Your task to perform on an android device: snooze an email in the gmail app Image 0: 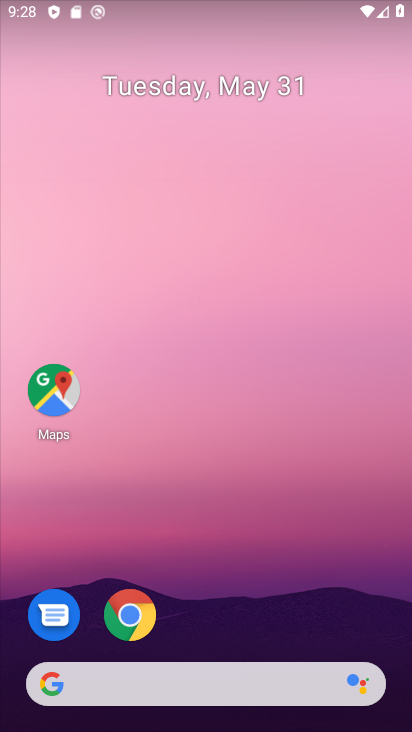
Step 0: drag from (244, 622) to (254, 47)
Your task to perform on an android device: snooze an email in the gmail app Image 1: 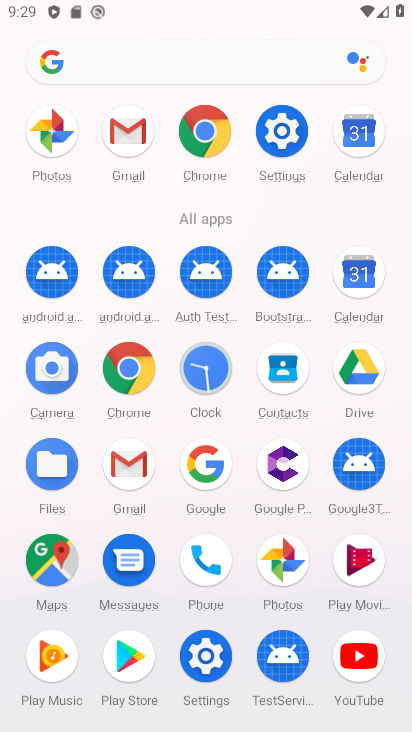
Step 1: click (121, 462)
Your task to perform on an android device: snooze an email in the gmail app Image 2: 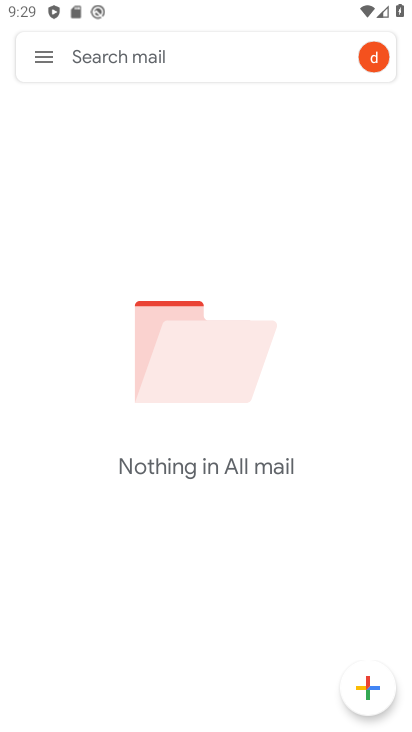
Step 2: click (36, 49)
Your task to perform on an android device: snooze an email in the gmail app Image 3: 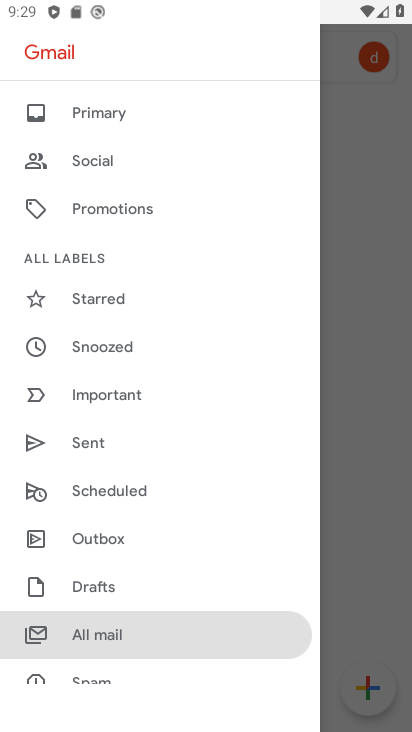
Step 3: click (83, 630)
Your task to perform on an android device: snooze an email in the gmail app Image 4: 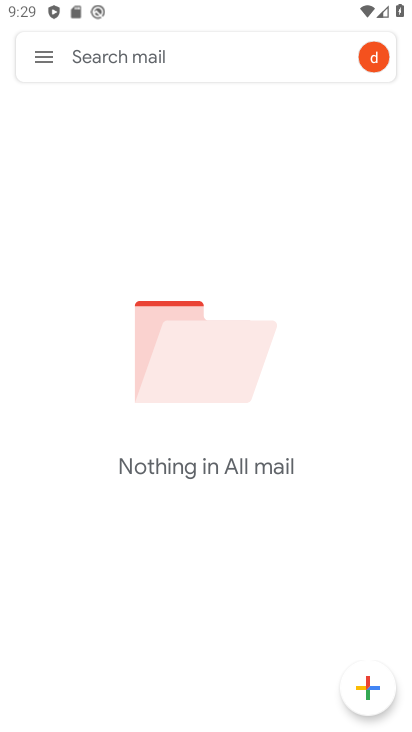
Step 4: task complete